Your task to perform on an android device: turn on the 12-hour format for clock Image 0: 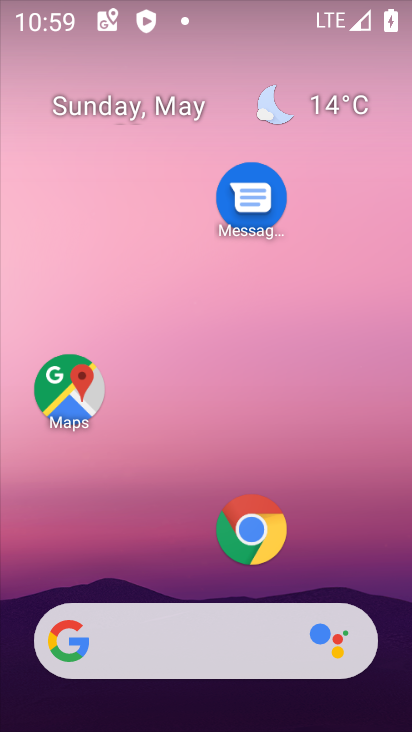
Step 0: drag from (145, 578) to (230, 13)
Your task to perform on an android device: turn on the 12-hour format for clock Image 1: 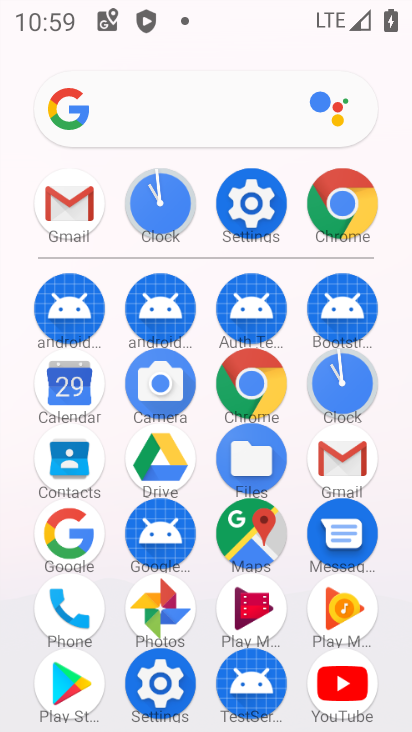
Step 1: click (154, 670)
Your task to perform on an android device: turn on the 12-hour format for clock Image 2: 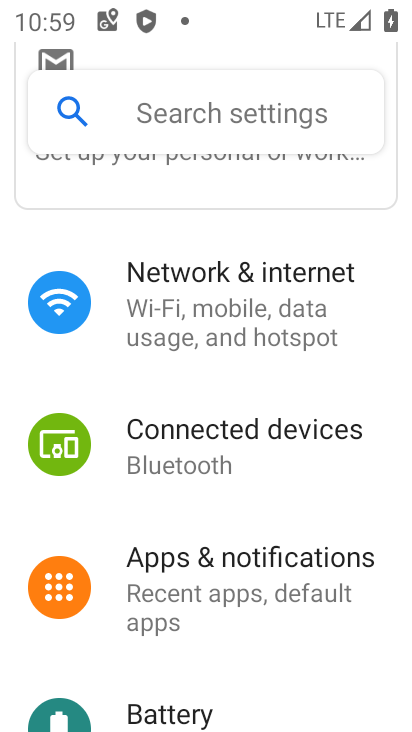
Step 2: drag from (239, 688) to (273, 30)
Your task to perform on an android device: turn on the 12-hour format for clock Image 3: 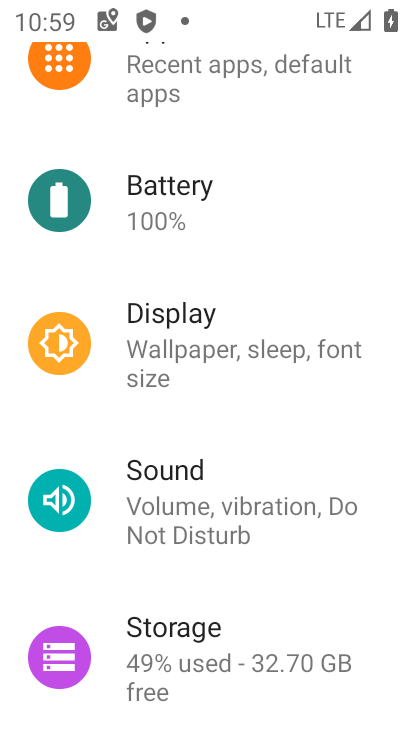
Step 3: drag from (212, 631) to (269, 37)
Your task to perform on an android device: turn on the 12-hour format for clock Image 4: 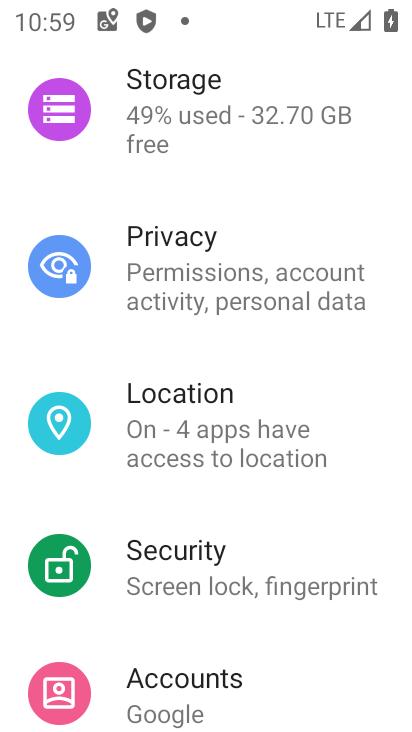
Step 4: drag from (204, 598) to (259, 124)
Your task to perform on an android device: turn on the 12-hour format for clock Image 5: 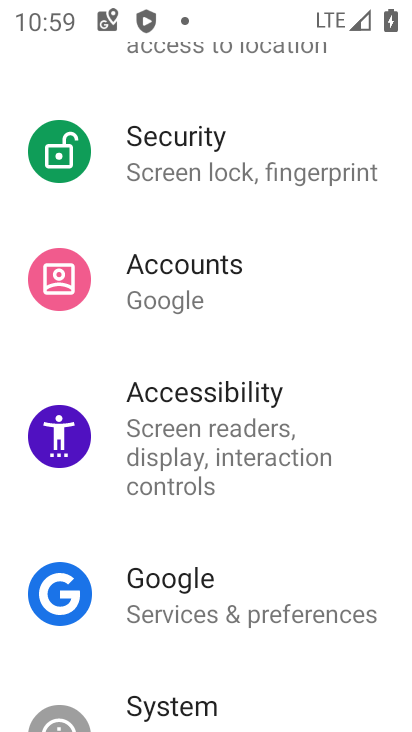
Step 5: drag from (206, 617) to (232, 181)
Your task to perform on an android device: turn on the 12-hour format for clock Image 6: 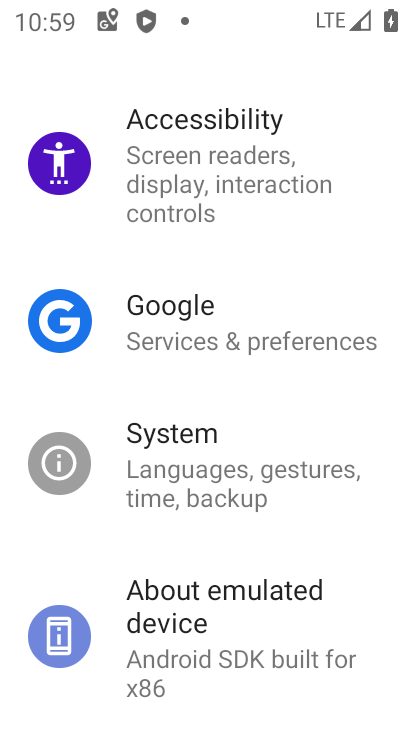
Step 6: click (201, 487)
Your task to perform on an android device: turn on the 12-hour format for clock Image 7: 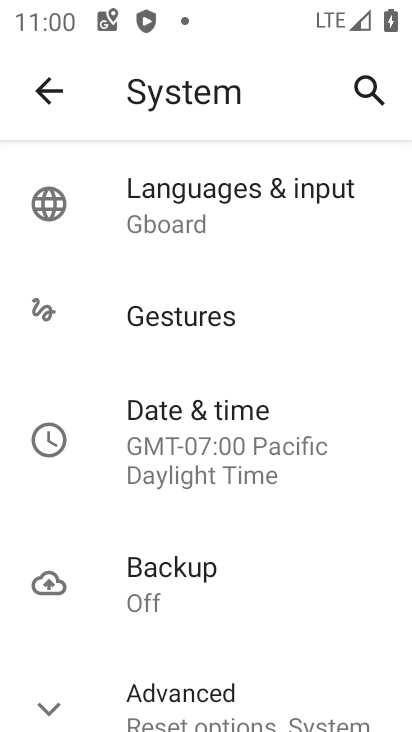
Step 7: drag from (195, 542) to (203, 449)
Your task to perform on an android device: turn on the 12-hour format for clock Image 8: 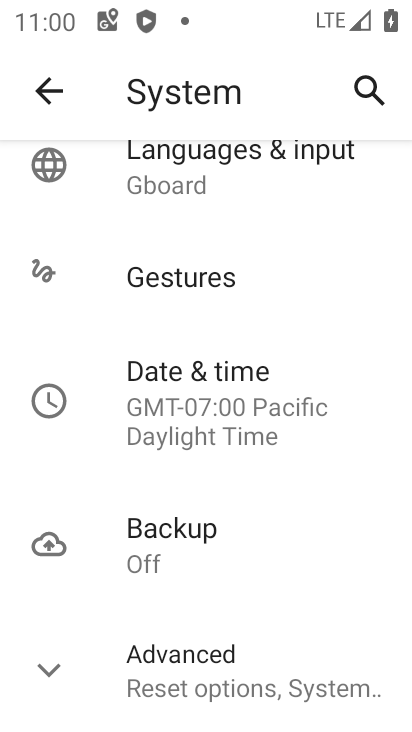
Step 8: click (201, 430)
Your task to perform on an android device: turn on the 12-hour format for clock Image 9: 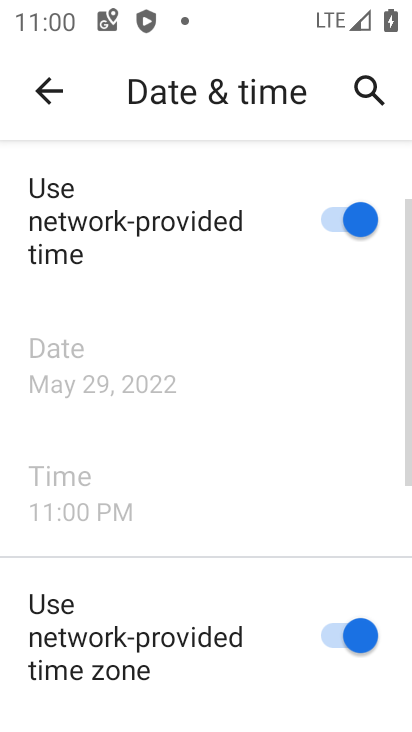
Step 9: task complete